Your task to perform on an android device: show emergency info Image 0: 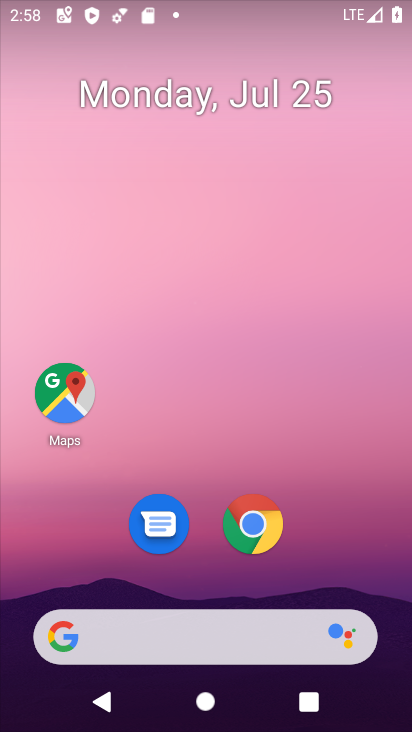
Step 0: drag from (331, 525) to (347, 51)
Your task to perform on an android device: show emergency info Image 1: 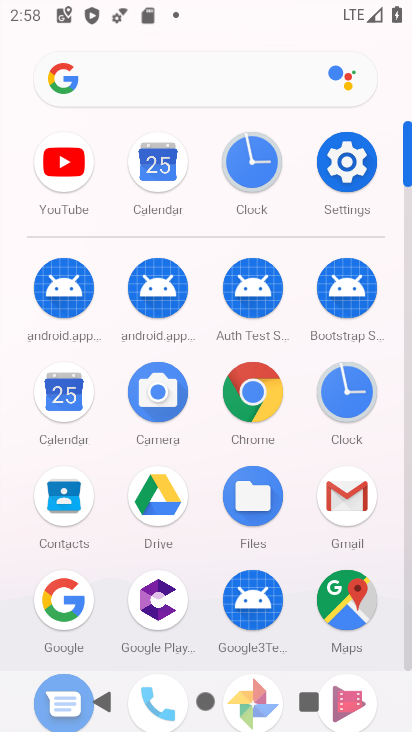
Step 1: drag from (195, 628) to (238, 185)
Your task to perform on an android device: show emergency info Image 2: 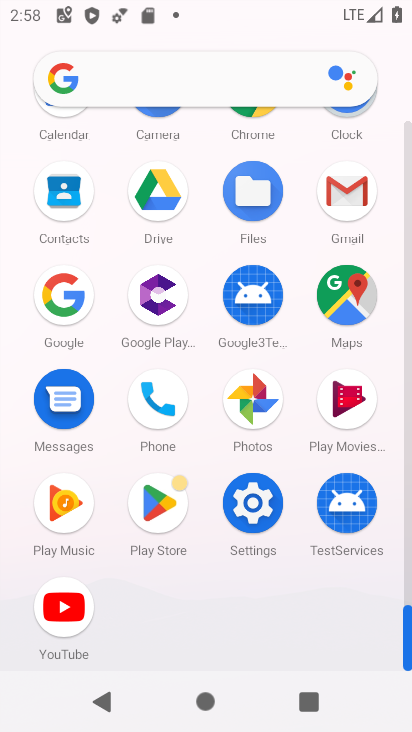
Step 2: click (255, 502)
Your task to perform on an android device: show emergency info Image 3: 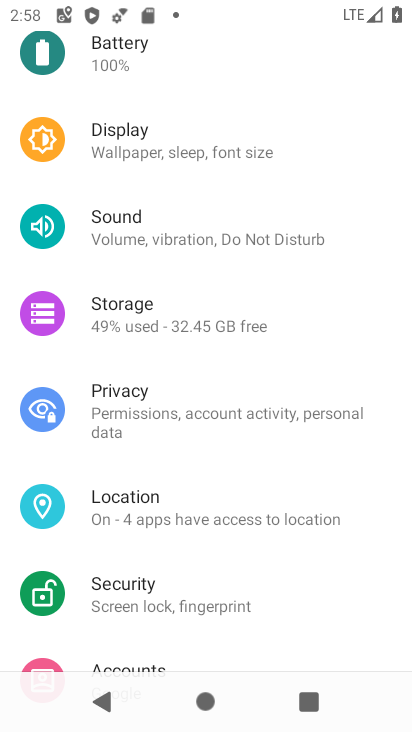
Step 3: drag from (256, 554) to (244, 45)
Your task to perform on an android device: show emergency info Image 4: 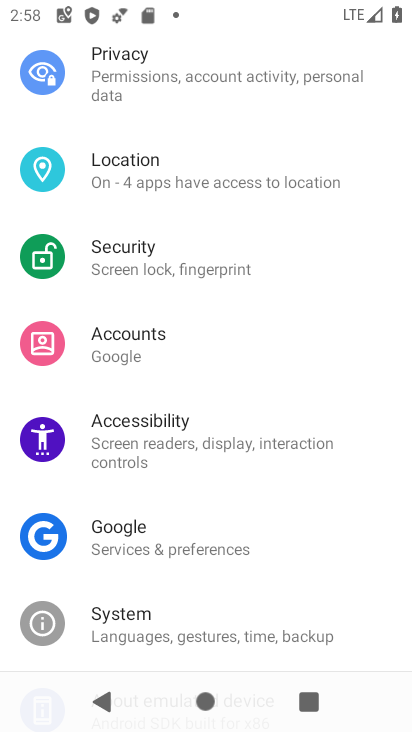
Step 4: drag from (242, 587) to (244, 332)
Your task to perform on an android device: show emergency info Image 5: 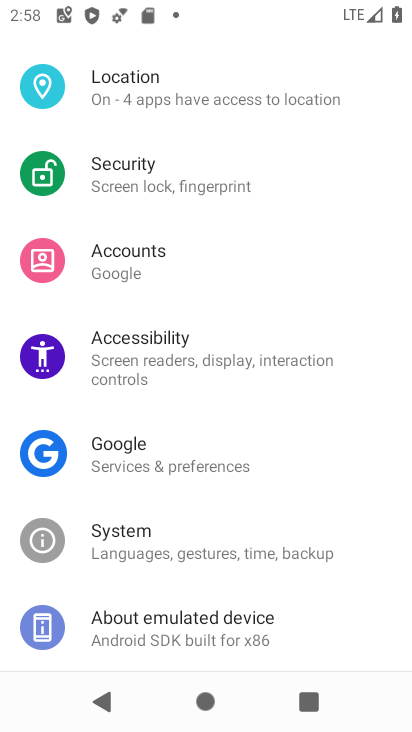
Step 5: click (217, 630)
Your task to perform on an android device: show emergency info Image 6: 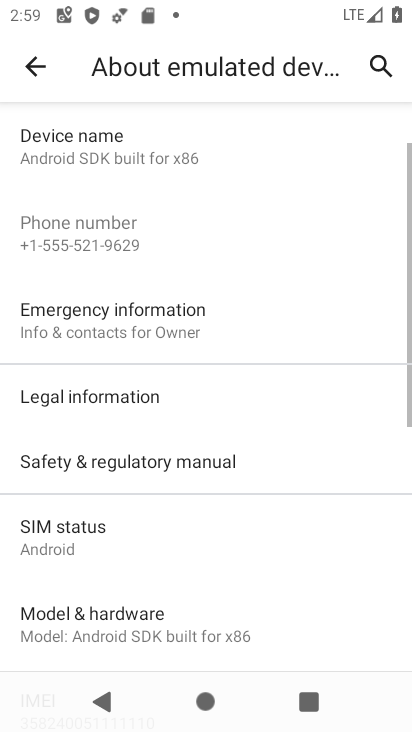
Step 6: click (172, 309)
Your task to perform on an android device: show emergency info Image 7: 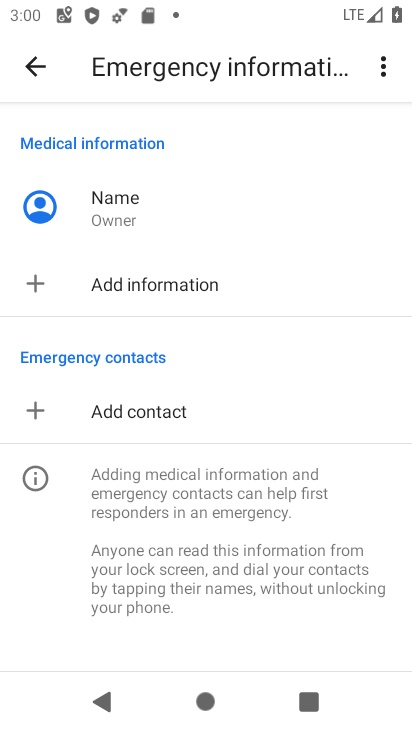
Step 7: task complete